Your task to perform on an android device: Go to Google maps Image 0: 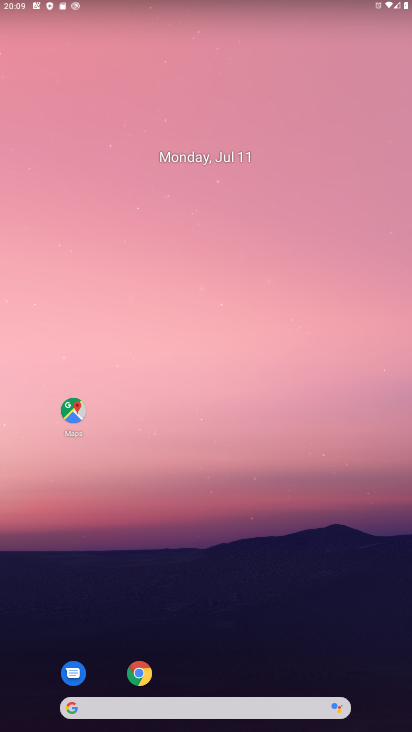
Step 0: press home button
Your task to perform on an android device: Go to Google maps Image 1: 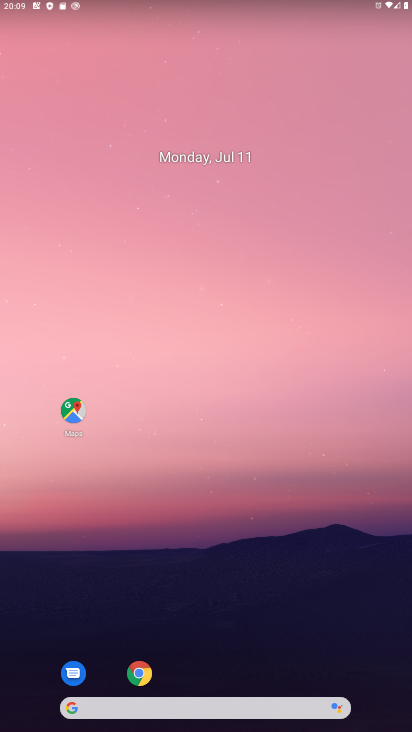
Step 1: click (72, 404)
Your task to perform on an android device: Go to Google maps Image 2: 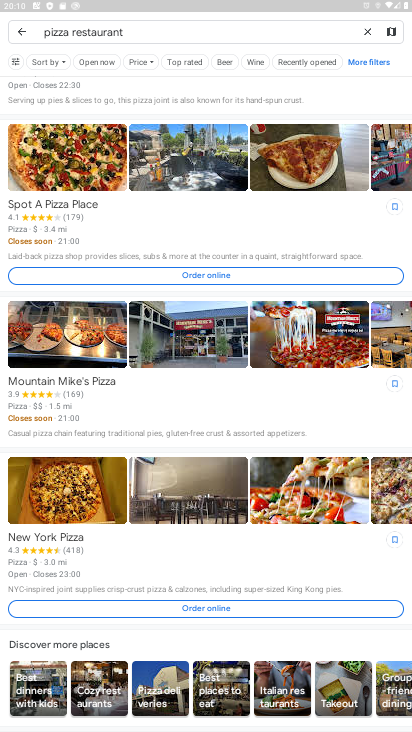
Step 2: click (20, 29)
Your task to perform on an android device: Go to Google maps Image 3: 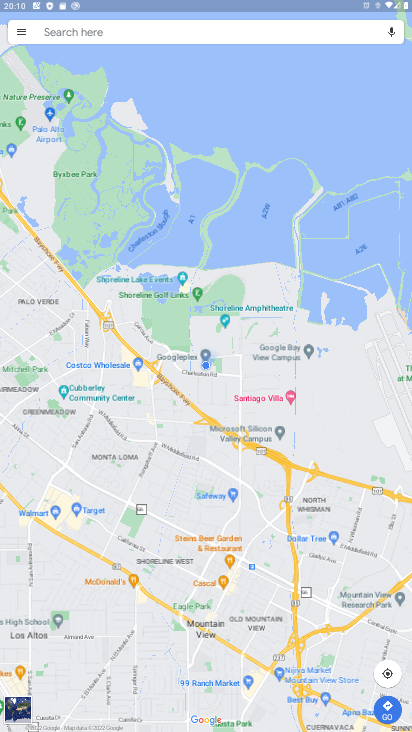
Step 3: click (18, 31)
Your task to perform on an android device: Go to Google maps Image 4: 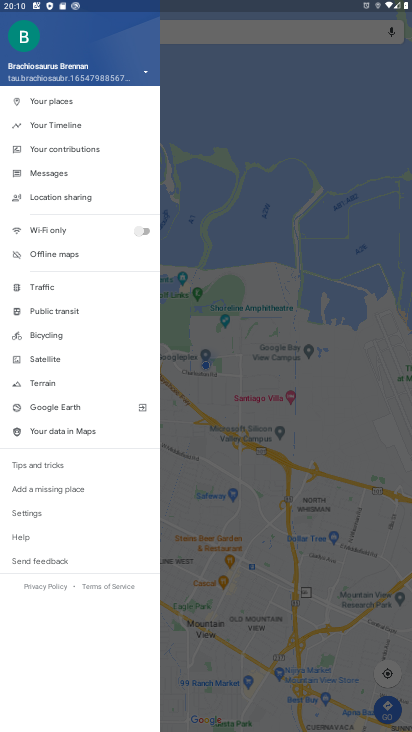
Step 4: click (224, 331)
Your task to perform on an android device: Go to Google maps Image 5: 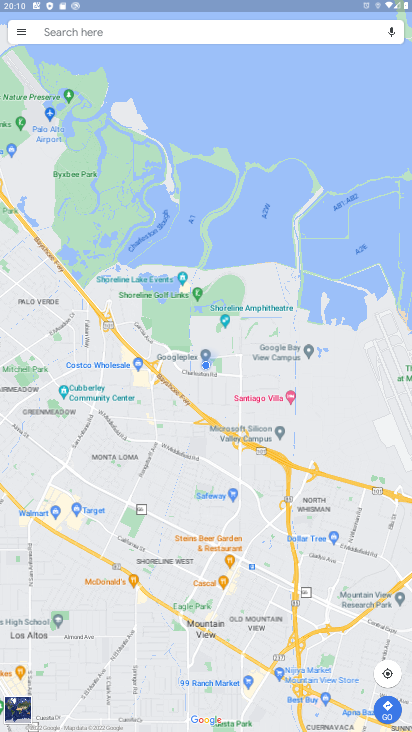
Step 5: task complete